Your task to perform on an android device: create a new album in the google photos Image 0: 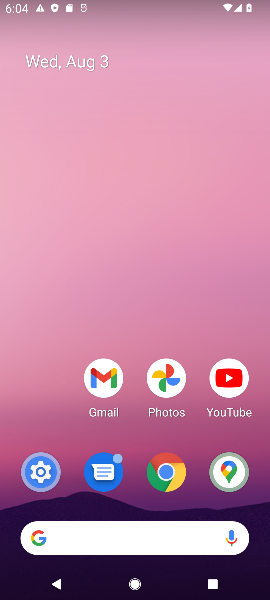
Step 0: drag from (130, 352) to (71, 87)
Your task to perform on an android device: create a new album in the google photos Image 1: 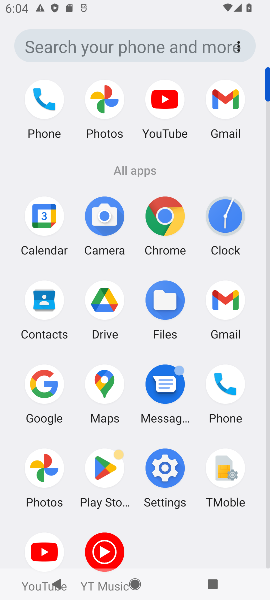
Step 1: click (51, 470)
Your task to perform on an android device: create a new album in the google photos Image 2: 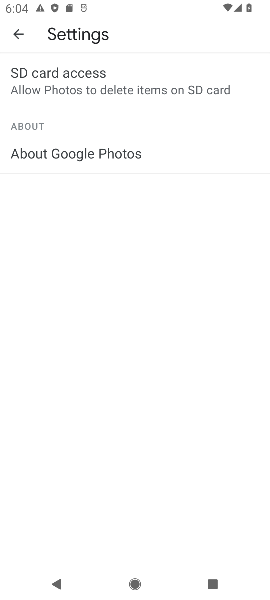
Step 2: click (26, 36)
Your task to perform on an android device: create a new album in the google photos Image 3: 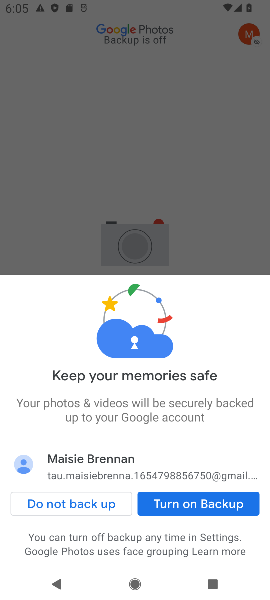
Step 3: click (245, 504)
Your task to perform on an android device: create a new album in the google photos Image 4: 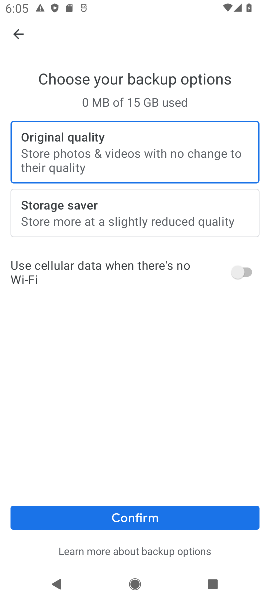
Step 4: click (199, 523)
Your task to perform on an android device: create a new album in the google photos Image 5: 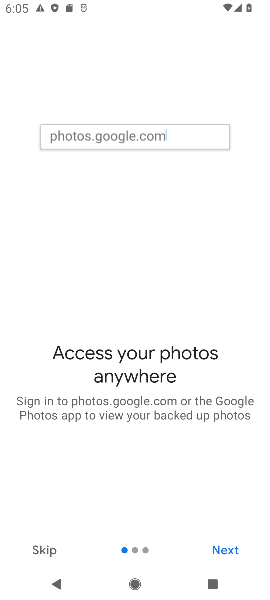
Step 5: click (235, 545)
Your task to perform on an android device: create a new album in the google photos Image 6: 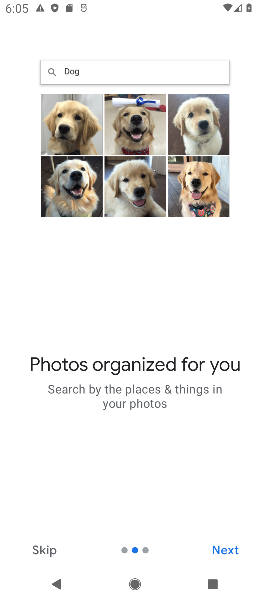
Step 6: click (235, 545)
Your task to perform on an android device: create a new album in the google photos Image 7: 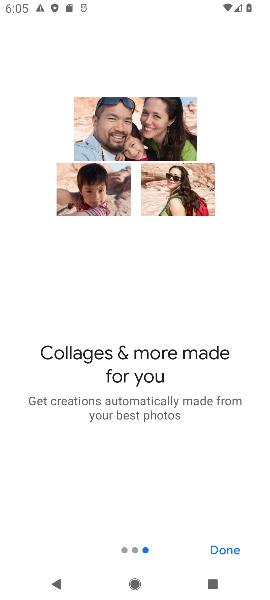
Step 7: click (234, 544)
Your task to perform on an android device: create a new album in the google photos Image 8: 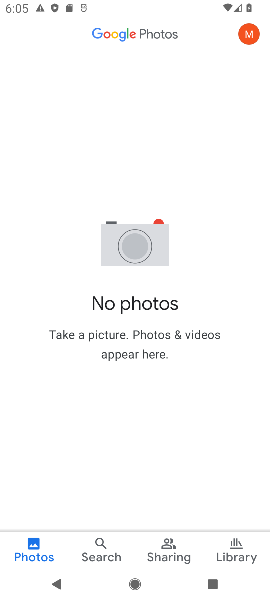
Step 8: click (229, 553)
Your task to perform on an android device: create a new album in the google photos Image 9: 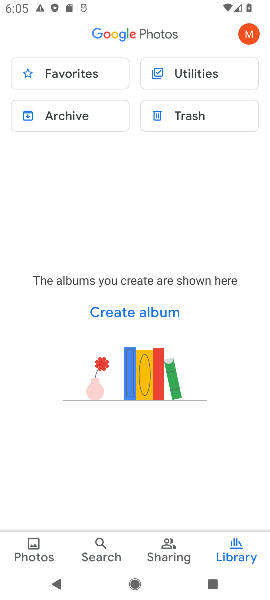
Step 9: click (140, 310)
Your task to perform on an android device: create a new album in the google photos Image 10: 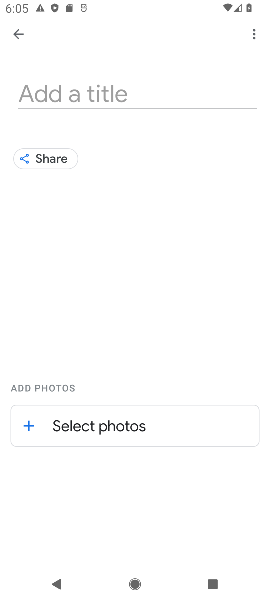
Step 10: click (104, 96)
Your task to perform on an android device: create a new album in the google photos Image 11: 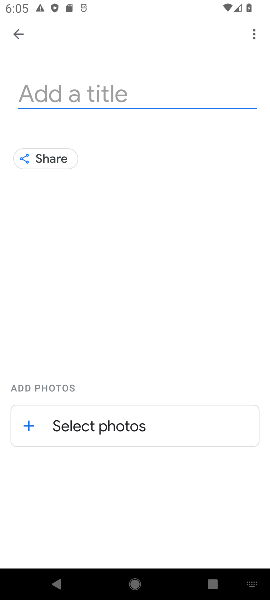
Step 11: type "jfnjf"
Your task to perform on an android device: create a new album in the google photos Image 12: 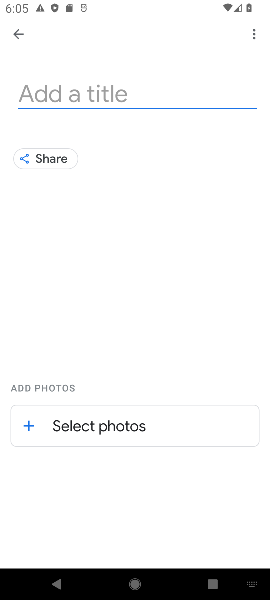
Step 12: click (205, 414)
Your task to perform on an android device: create a new album in the google photos Image 13: 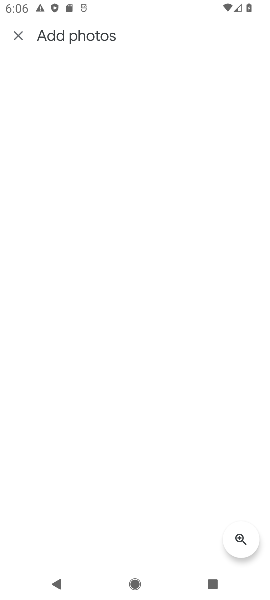
Step 13: task complete